Your task to perform on an android device: turn off location history Image 0: 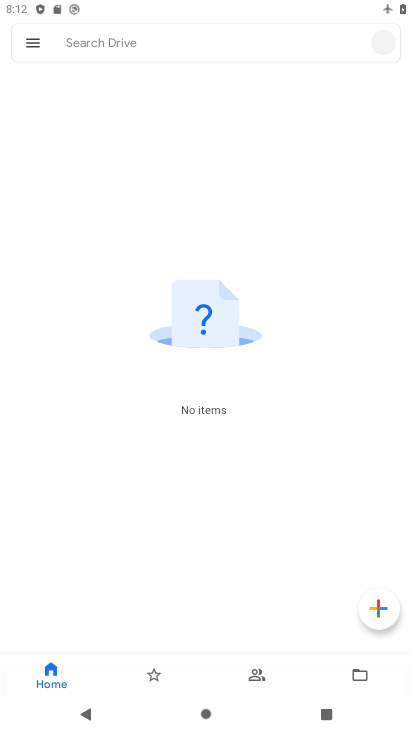
Step 0: press home button
Your task to perform on an android device: turn off location history Image 1: 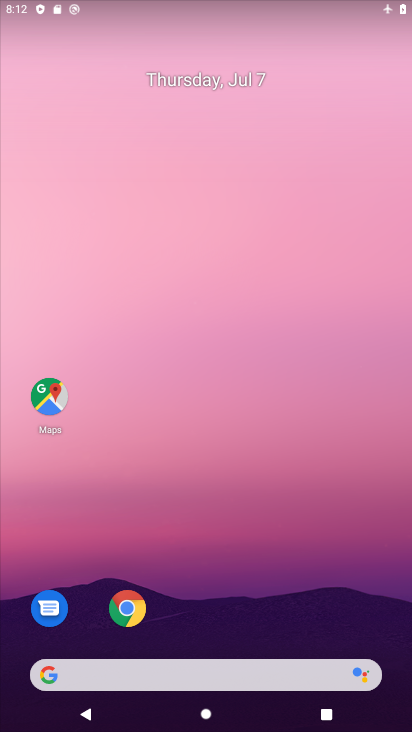
Step 1: drag from (361, 598) to (381, 72)
Your task to perform on an android device: turn off location history Image 2: 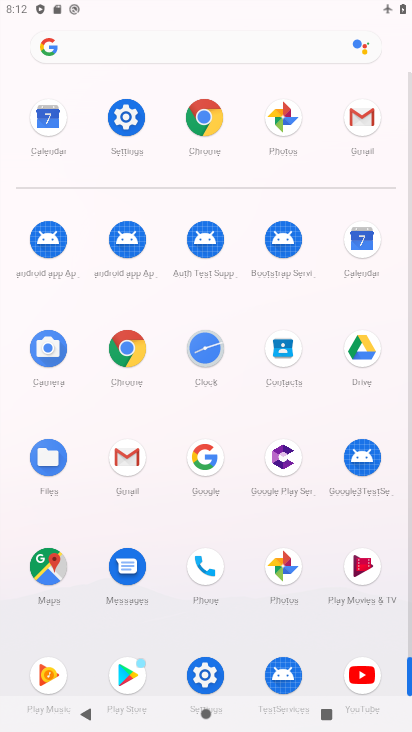
Step 2: click (129, 134)
Your task to perform on an android device: turn off location history Image 3: 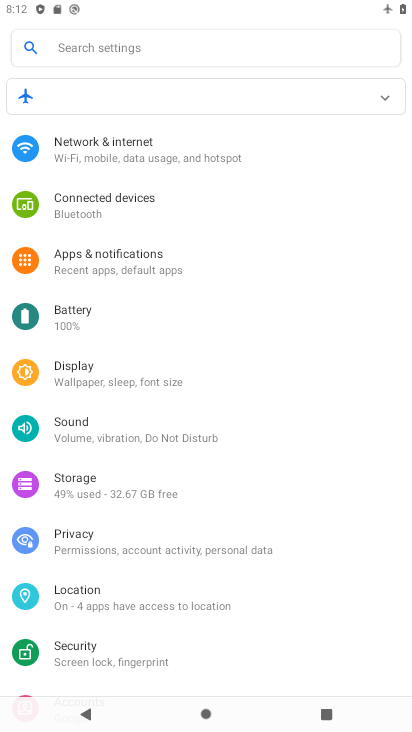
Step 3: drag from (321, 410) to (334, 325)
Your task to perform on an android device: turn off location history Image 4: 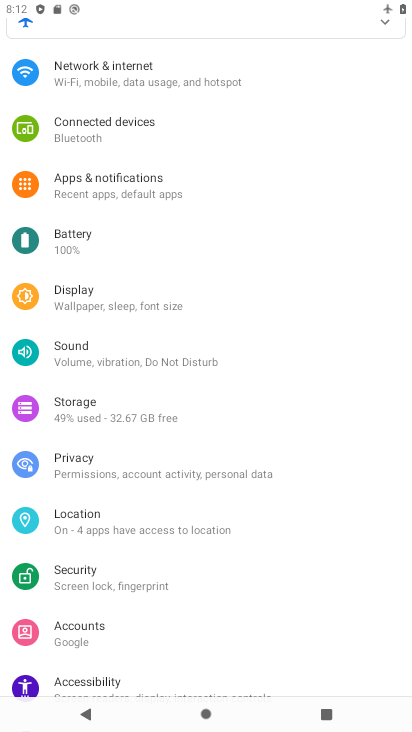
Step 4: drag from (353, 413) to (360, 302)
Your task to perform on an android device: turn off location history Image 5: 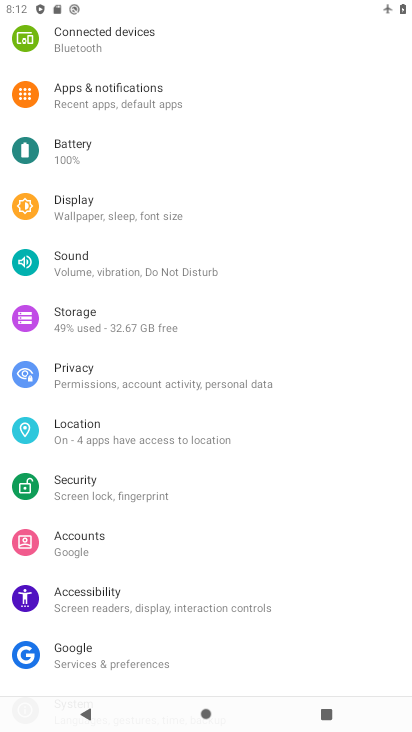
Step 5: drag from (337, 458) to (343, 253)
Your task to perform on an android device: turn off location history Image 6: 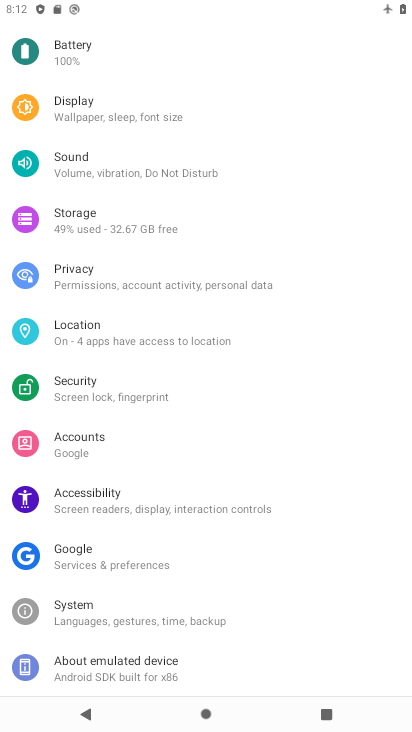
Step 6: click (221, 340)
Your task to perform on an android device: turn off location history Image 7: 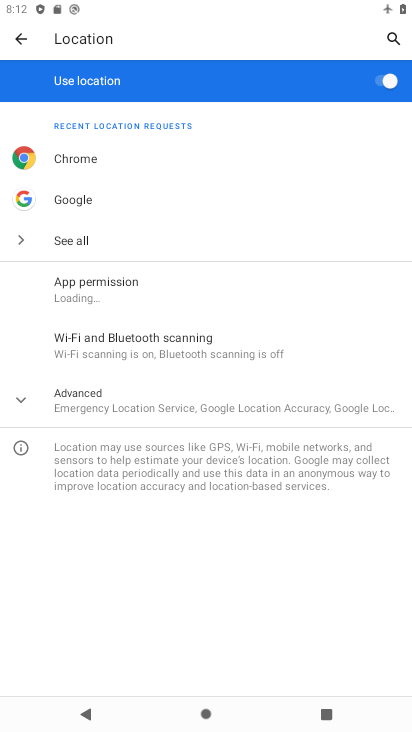
Step 7: click (163, 415)
Your task to perform on an android device: turn off location history Image 8: 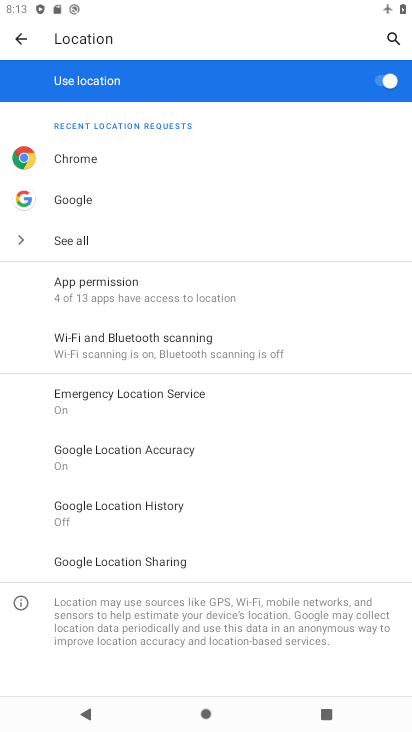
Step 8: click (139, 509)
Your task to perform on an android device: turn off location history Image 9: 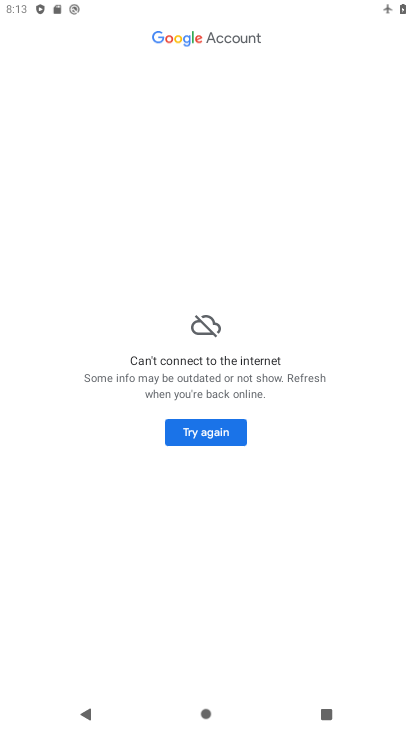
Step 9: task complete